Your task to perform on an android device: check google app version Image 0: 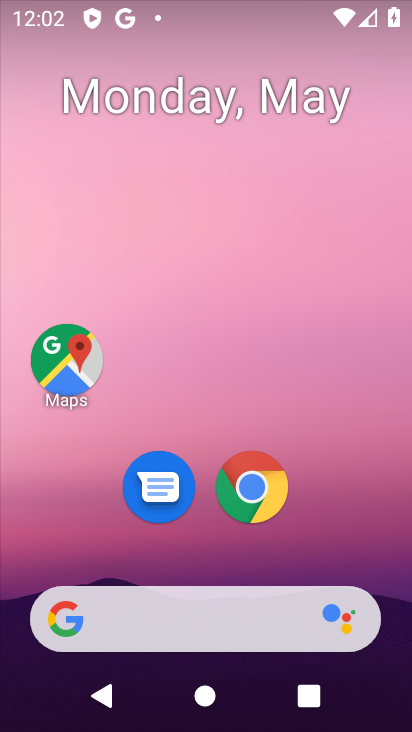
Step 0: drag from (217, 562) to (204, 81)
Your task to perform on an android device: check google app version Image 1: 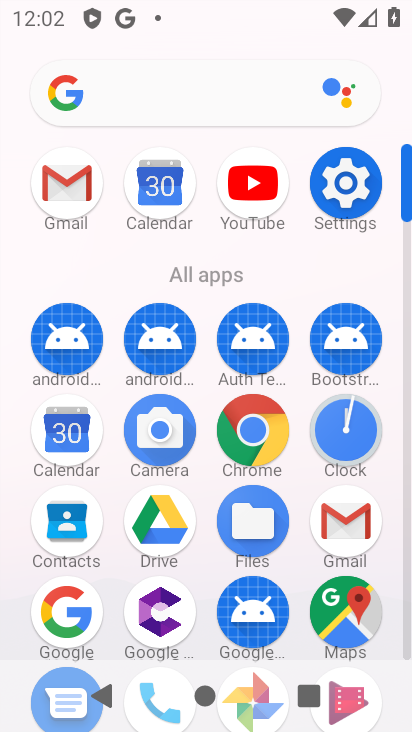
Step 1: click (65, 609)
Your task to perform on an android device: check google app version Image 2: 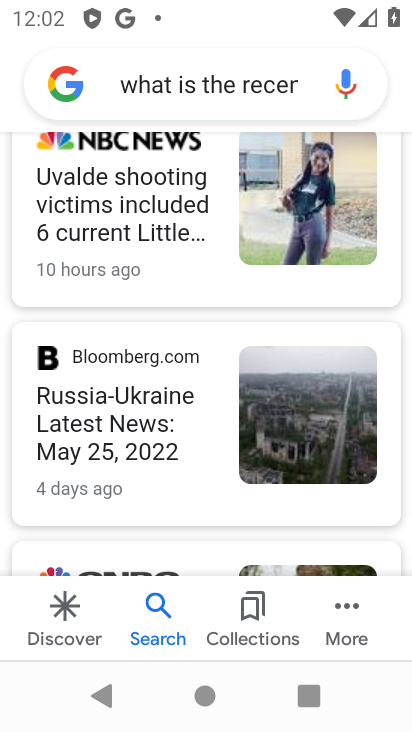
Step 2: click (354, 623)
Your task to perform on an android device: check google app version Image 3: 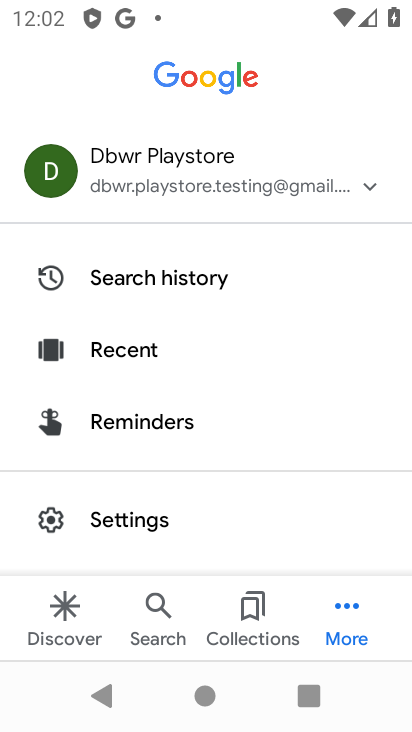
Step 3: drag from (181, 507) to (172, 19)
Your task to perform on an android device: check google app version Image 4: 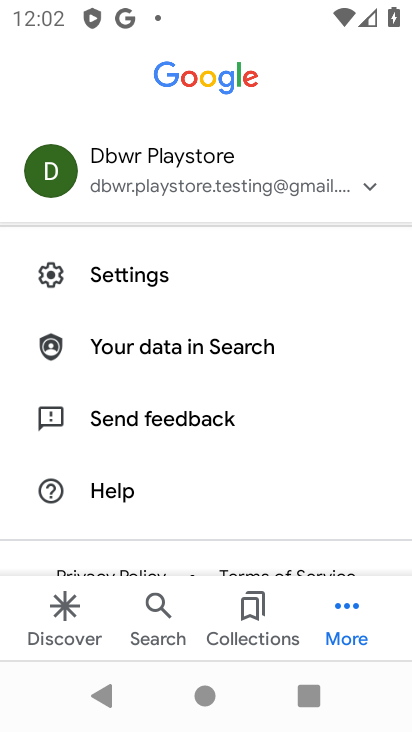
Step 4: click (132, 287)
Your task to perform on an android device: check google app version Image 5: 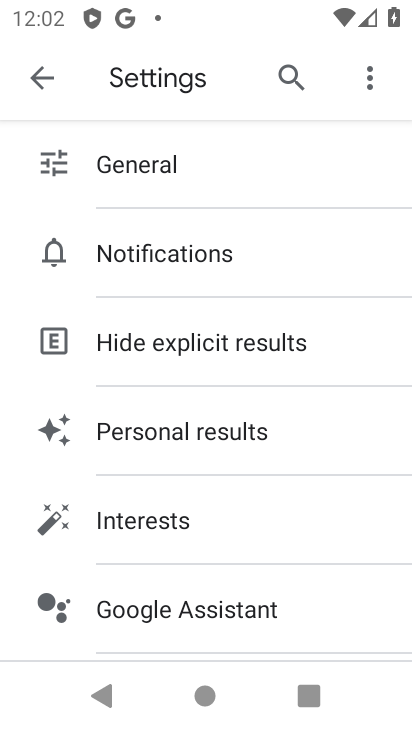
Step 5: drag from (176, 519) to (193, 107)
Your task to perform on an android device: check google app version Image 6: 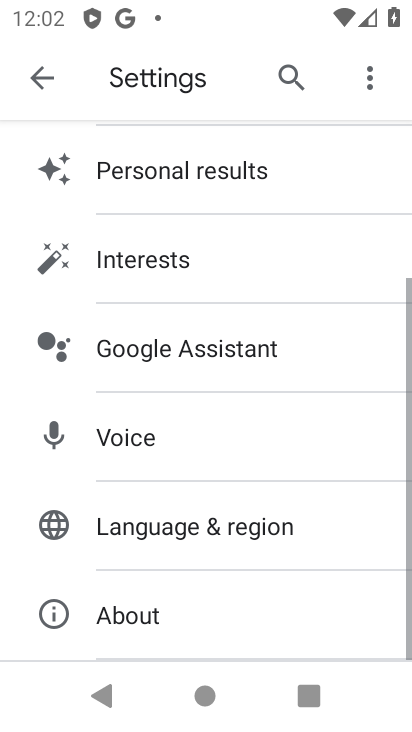
Step 6: click (124, 595)
Your task to perform on an android device: check google app version Image 7: 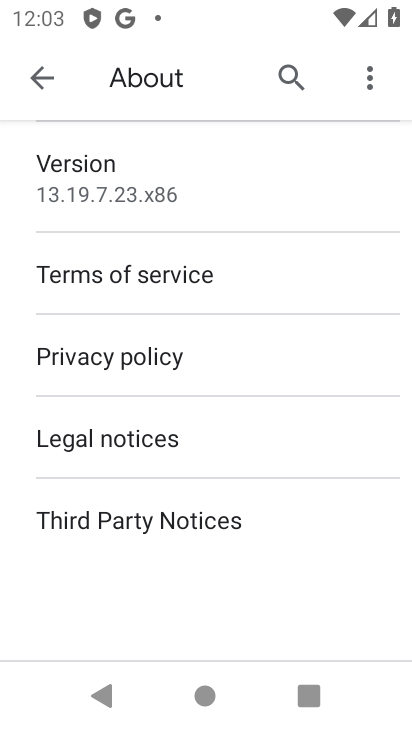
Step 7: click (116, 175)
Your task to perform on an android device: check google app version Image 8: 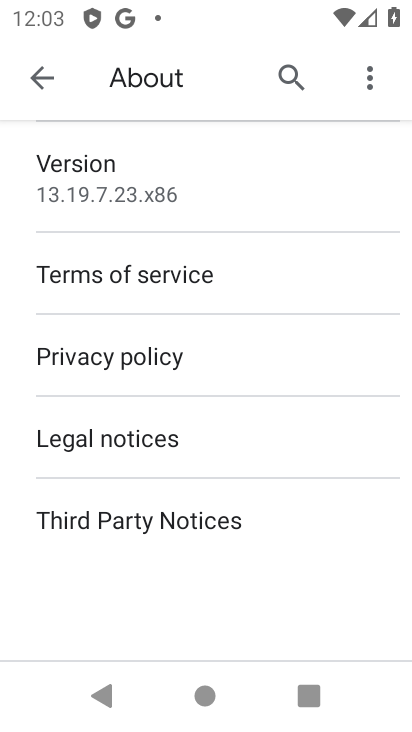
Step 8: task complete